Your task to perform on an android device: Search for sushi restaurants on Maps Image 0: 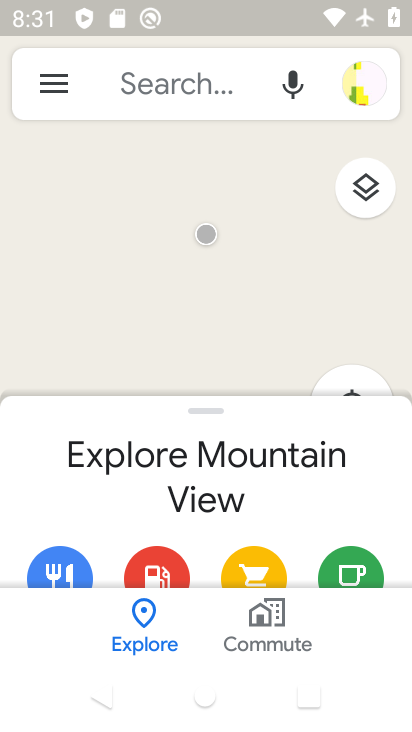
Step 0: press home button
Your task to perform on an android device: Search for sushi restaurants on Maps Image 1: 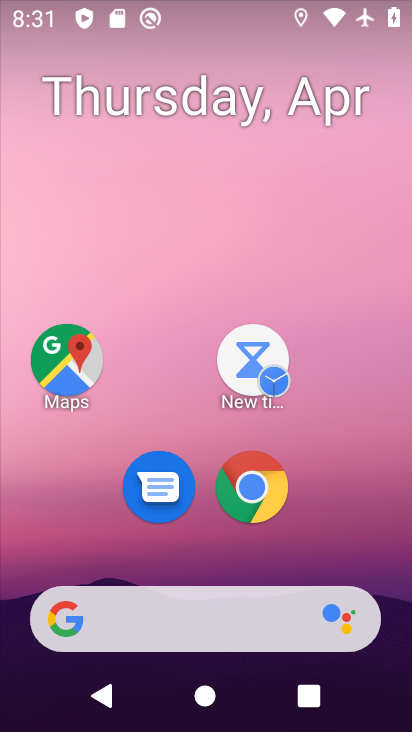
Step 1: click (47, 369)
Your task to perform on an android device: Search for sushi restaurants on Maps Image 2: 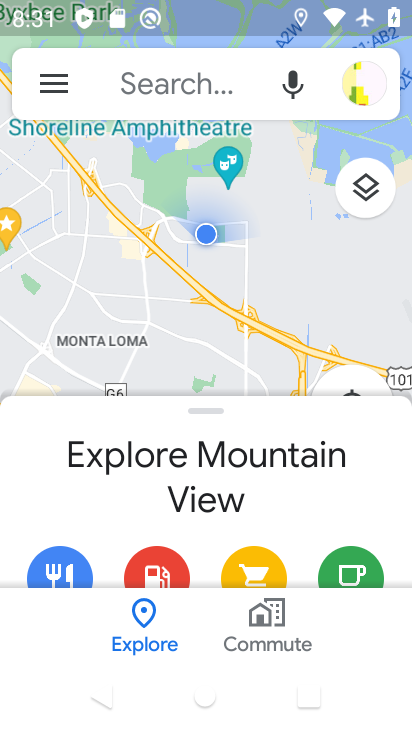
Step 2: click (147, 66)
Your task to perform on an android device: Search for sushi restaurants on Maps Image 3: 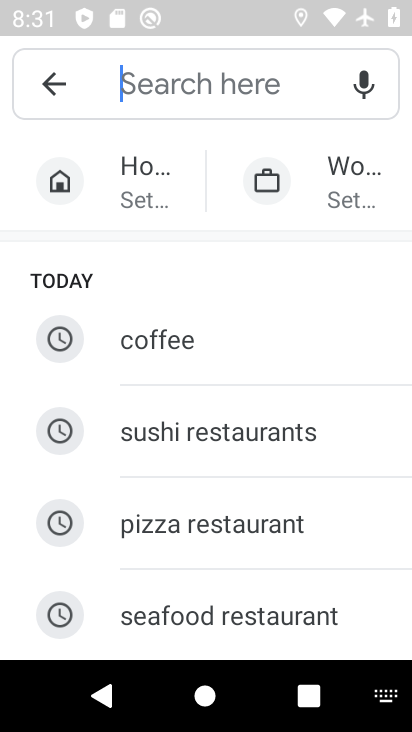
Step 3: click (159, 431)
Your task to perform on an android device: Search for sushi restaurants on Maps Image 4: 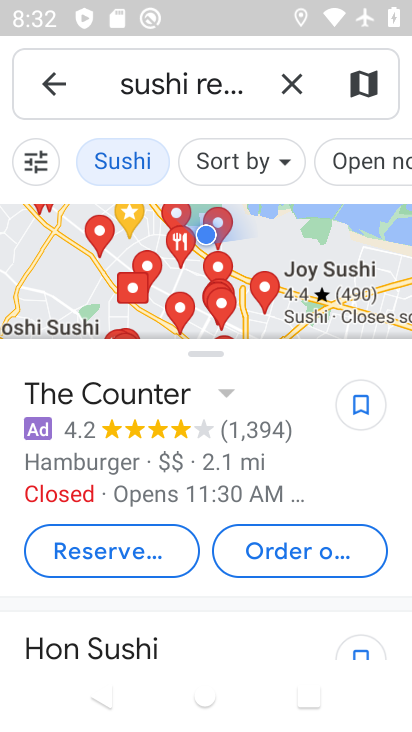
Step 4: task complete